Your task to perform on an android device: What's the weather going to be this weekend? Image 0: 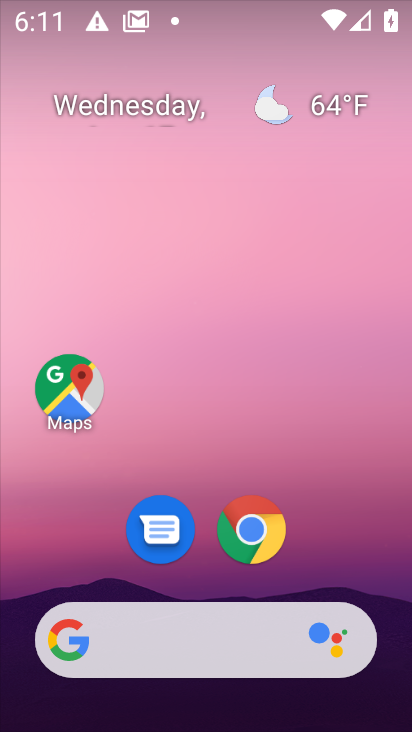
Step 0: drag from (195, 511) to (228, 252)
Your task to perform on an android device: What's the weather going to be this weekend? Image 1: 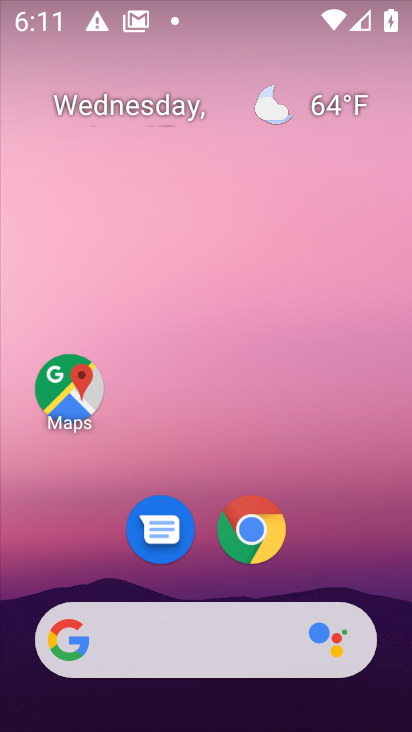
Step 1: click (197, 636)
Your task to perform on an android device: What's the weather going to be this weekend? Image 2: 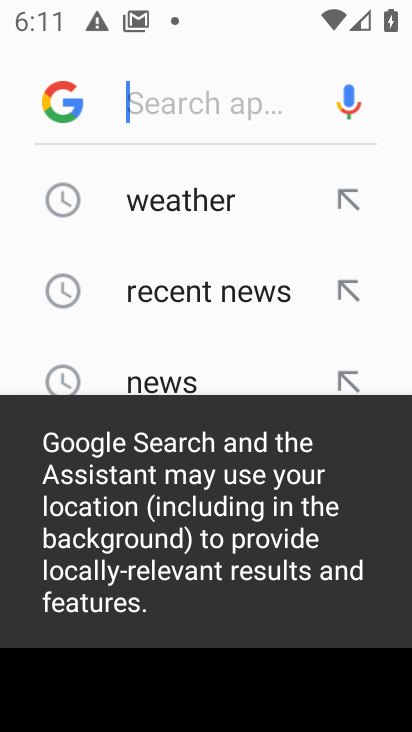
Step 2: click (184, 206)
Your task to perform on an android device: What's the weather going to be this weekend? Image 3: 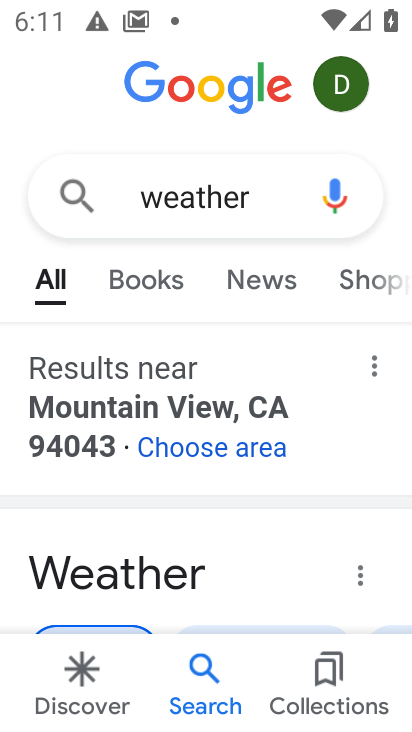
Step 3: drag from (244, 428) to (228, 209)
Your task to perform on an android device: What's the weather going to be this weekend? Image 4: 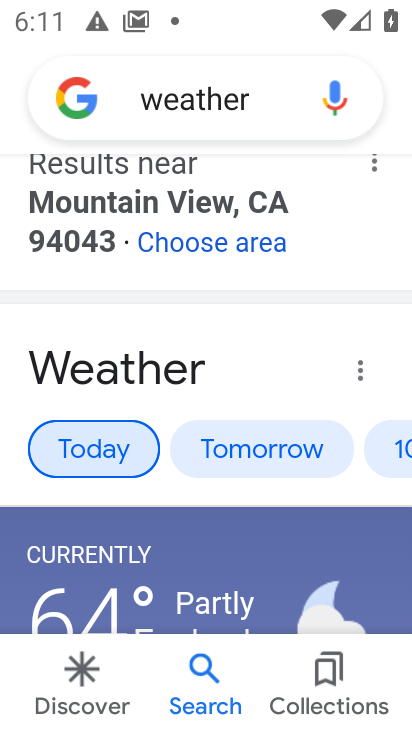
Step 4: click (384, 459)
Your task to perform on an android device: What's the weather going to be this weekend? Image 5: 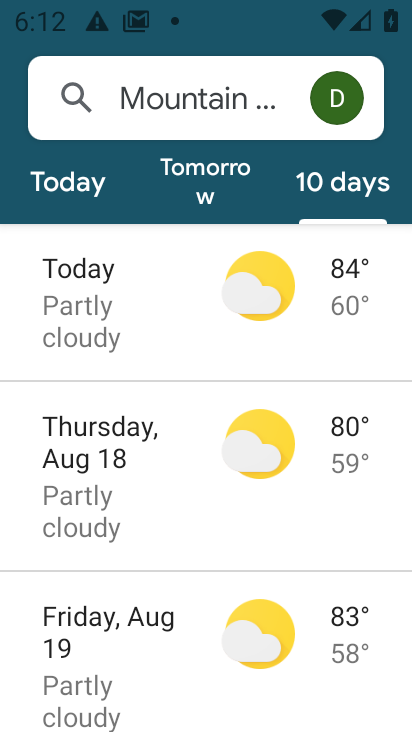
Step 5: task complete